Your task to perform on an android device: turn off data saver in the chrome app Image 0: 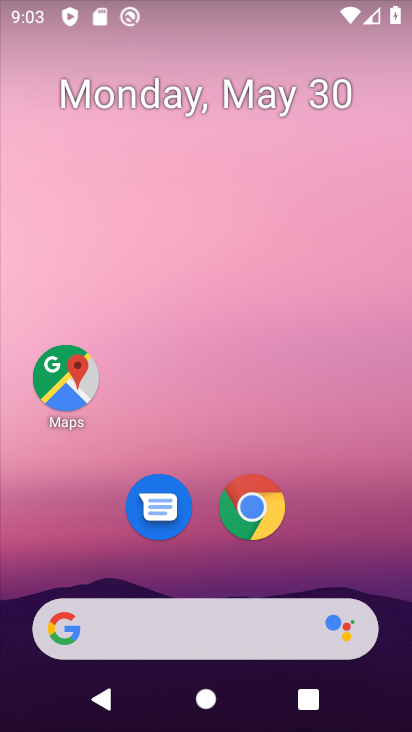
Step 0: drag from (237, 535) to (247, 261)
Your task to perform on an android device: turn off data saver in the chrome app Image 1: 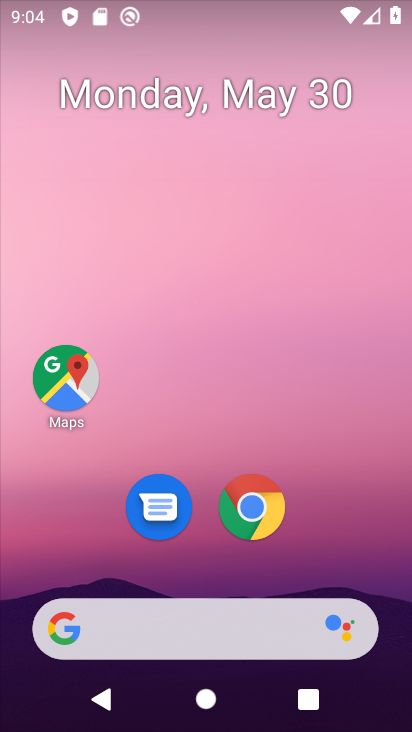
Step 1: click (240, 505)
Your task to perform on an android device: turn off data saver in the chrome app Image 2: 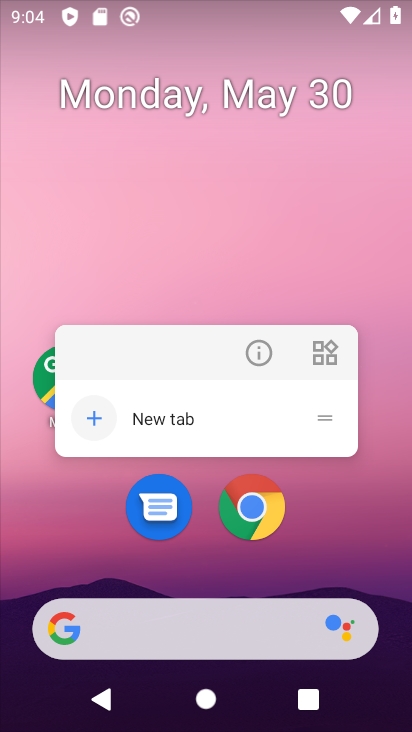
Step 2: click (260, 508)
Your task to perform on an android device: turn off data saver in the chrome app Image 3: 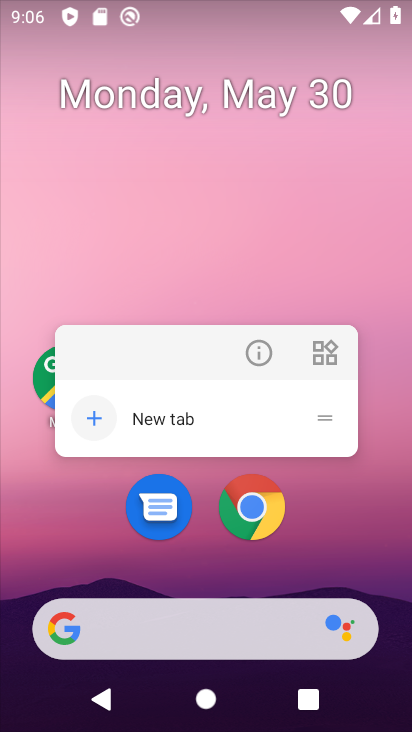
Step 3: drag from (235, 593) to (346, 140)
Your task to perform on an android device: turn off data saver in the chrome app Image 4: 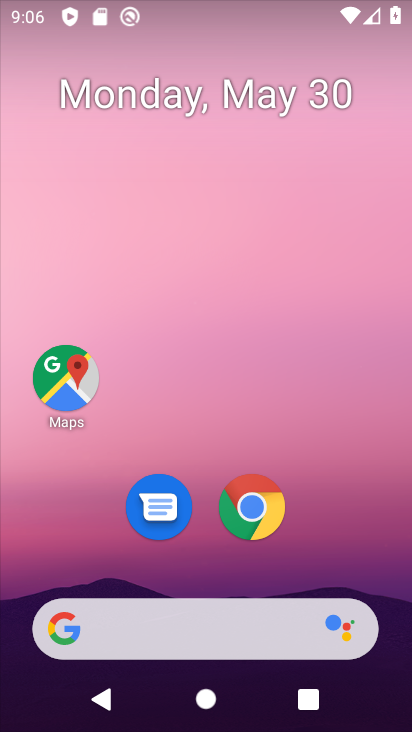
Step 4: click (258, 521)
Your task to perform on an android device: turn off data saver in the chrome app Image 5: 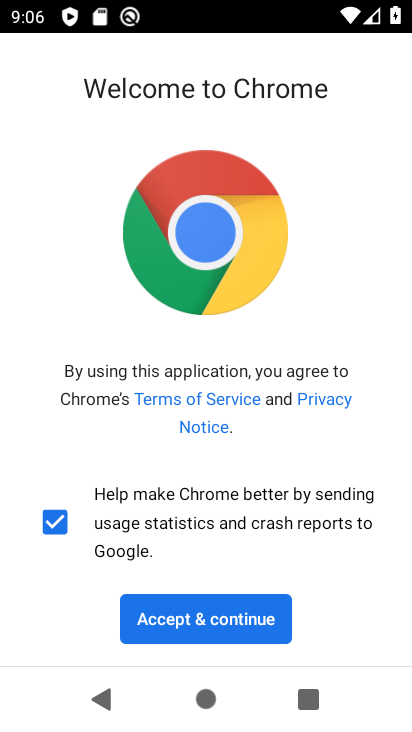
Step 5: click (219, 621)
Your task to perform on an android device: turn off data saver in the chrome app Image 6: 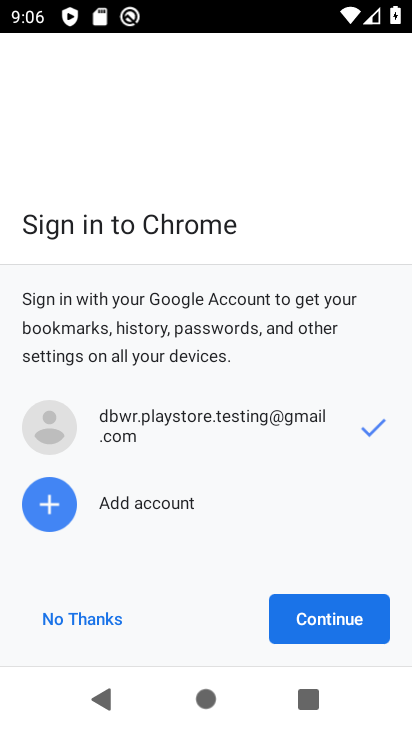
Step 6: click (285, 630)
Your task to perform on an android device: turn off data saver in the chrome app Image 7: 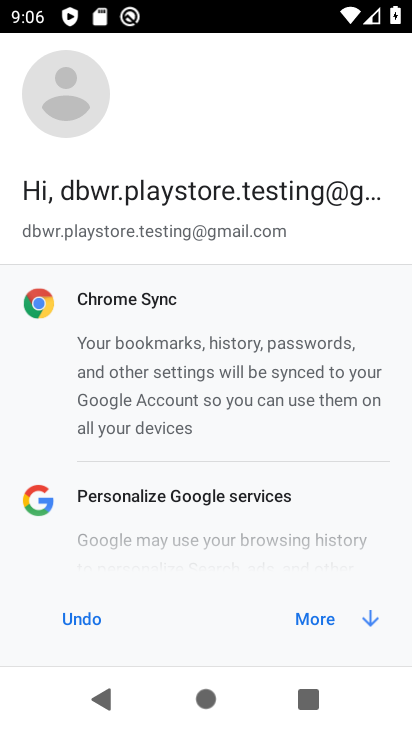
Step 7: click (327, 620)
Your task to perform on an android device: turn off data saver in the chrome app Image 8: 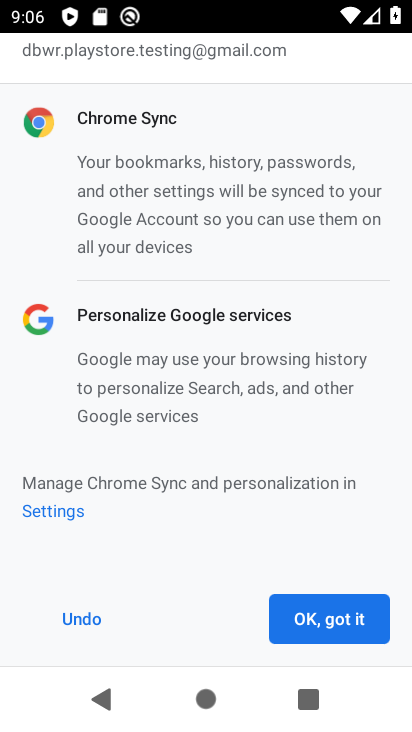
Step 8: click (318, 622)
Your task to perform on an android device: turn off data saver in the chrome app Image 9: 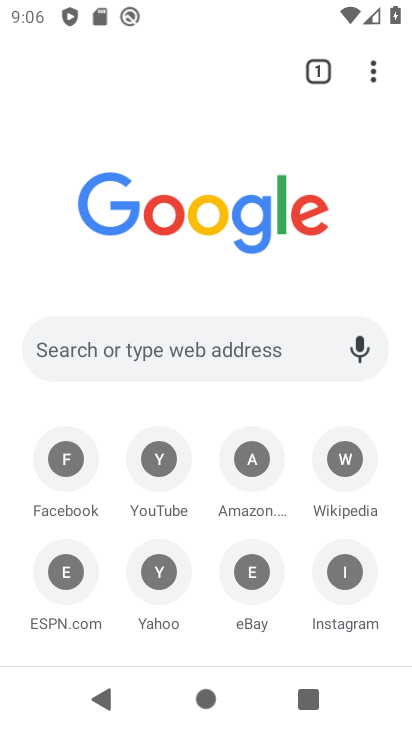
Step 9: click (378, 66)
Your task to perform on an android device: turn off data saver in the chrome app Image 10: 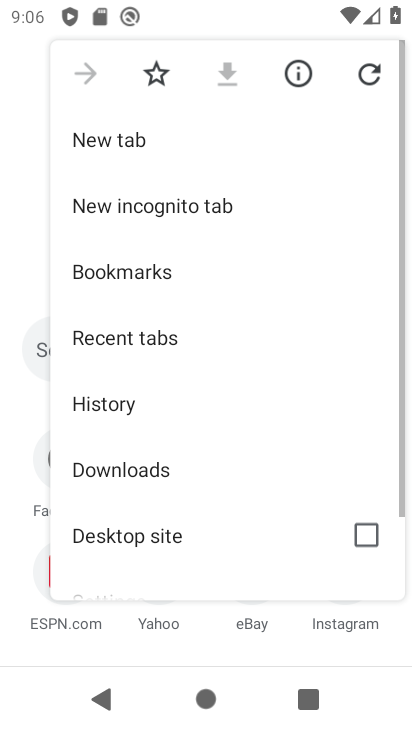
Step 10: drag from (163, 556) to (179, 132)
Your task to perform on an android device: turn off data saver in the chrome app Image 11: 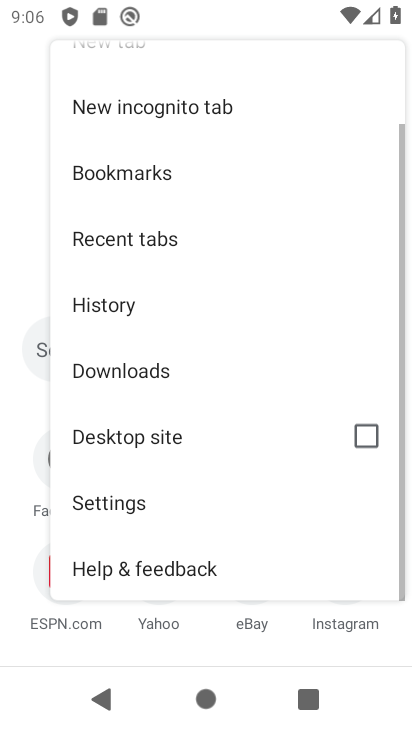
Step 11: click (102, 496)
Your task to perform on an android device: turn off data saver in the chrome app Image 12: 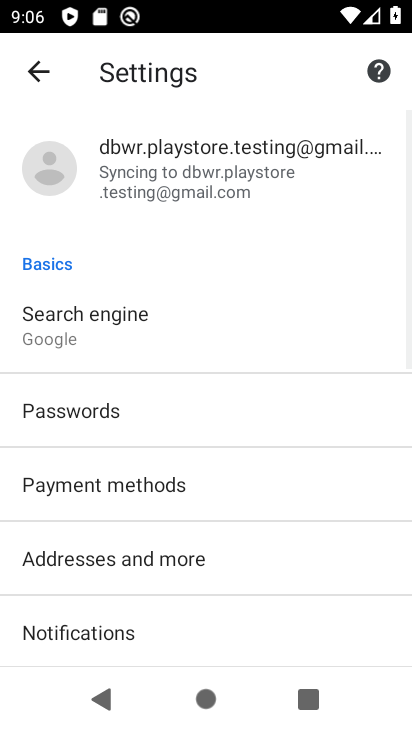
Step 12: drag from (64, 635) to (104, 386)
Your task to perform on an android device: turn off data saver in the chrome app Image 13: 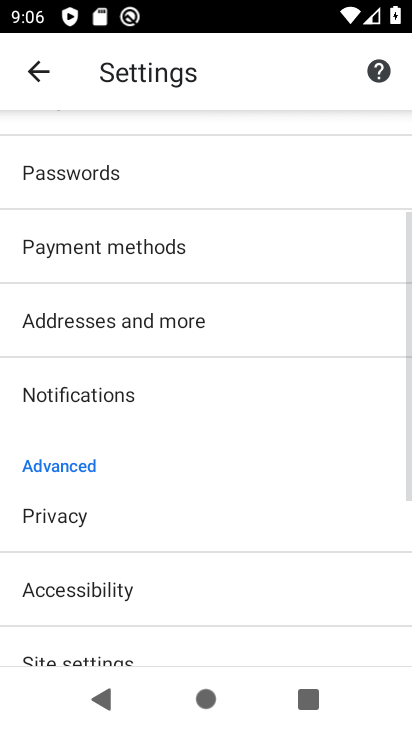
Step 13: drag from (53, 651) to (101, 394)
Your task to perform on an android device: turn off data saver in the chrome app Image 14: 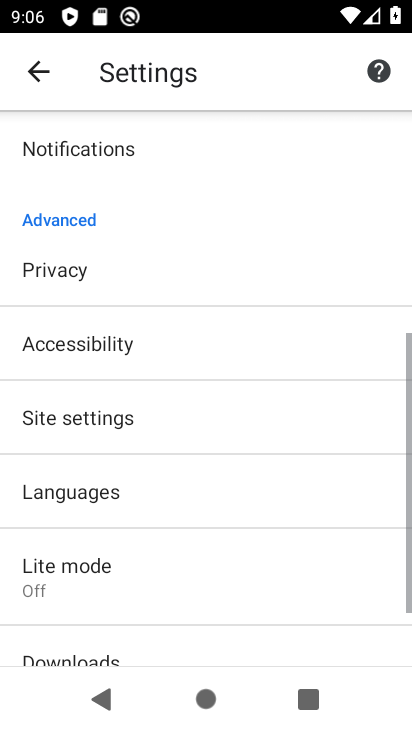
Step 14: click (70, 583)
Your task to perform on an android device: turn off data saver in the chrome app Image 15: 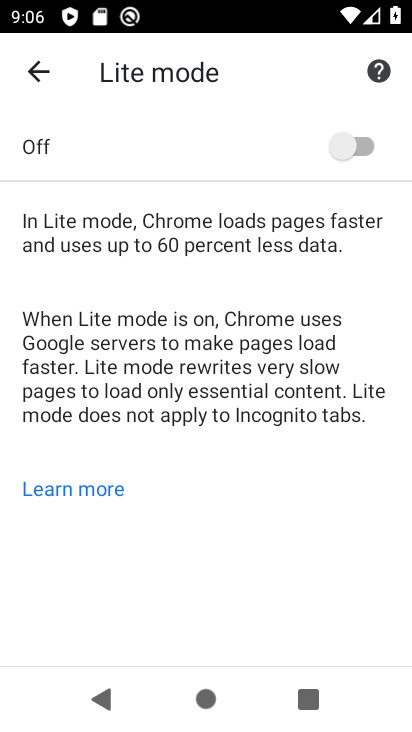
Step 15: task complete